Your task to perform on an android device: Open internet settings Image 0: 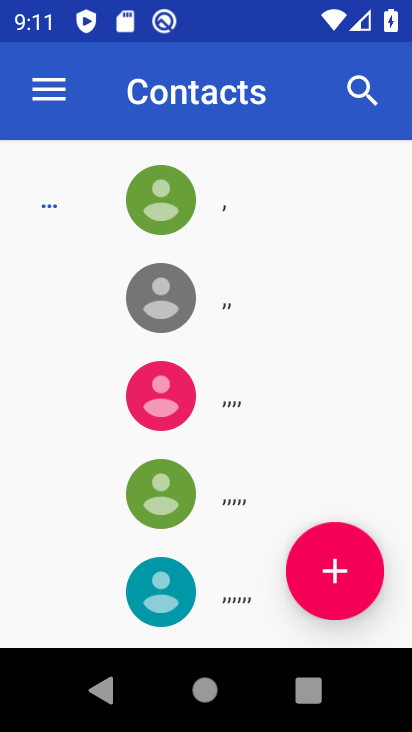
Step 0: press home button
Your task to perform on an android device: Open internet settings Image 1: 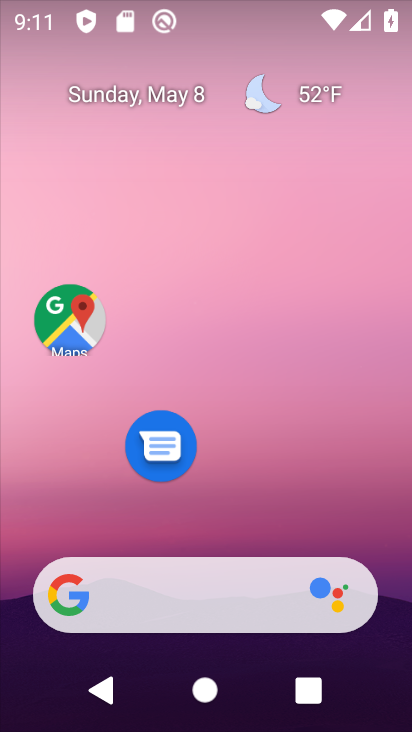
Step 1: drag from (329, 507) to (357, 68)
Your task to perform on an android device: Open internet settings Image 2: 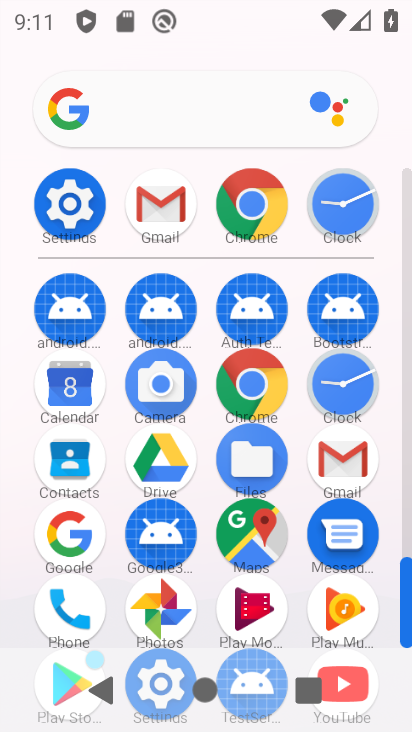
Step 2: click (90, 189)
Your task to perform on an android device: Open internet settings Image 3: 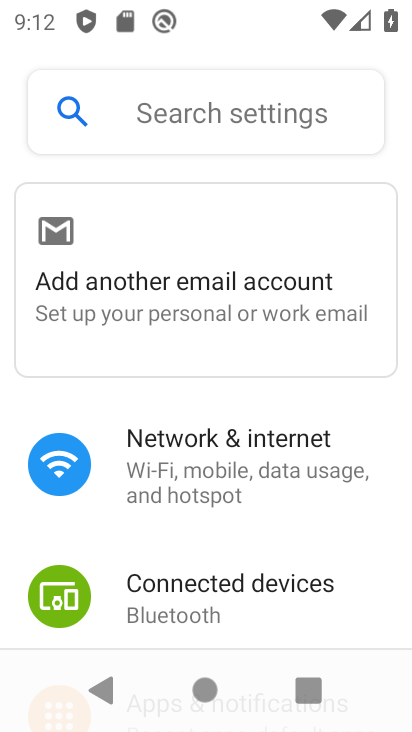
Step 3: click (148, 434)
Your task to perform on an android device: Open internet settings Image 4: 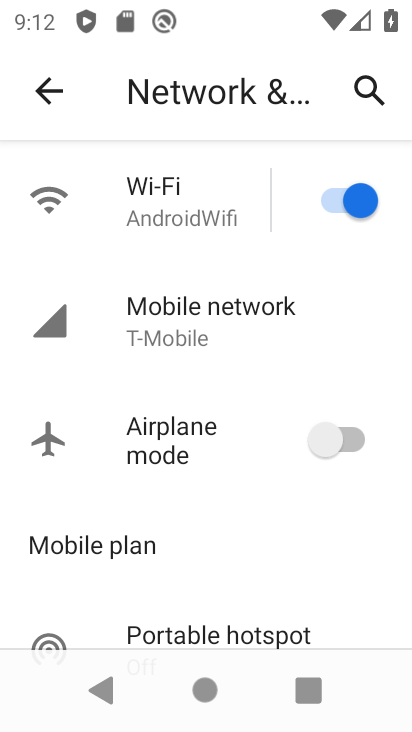
Step 4: task complete